Your task to perform on an android device: turn on airplane mode Image 0: 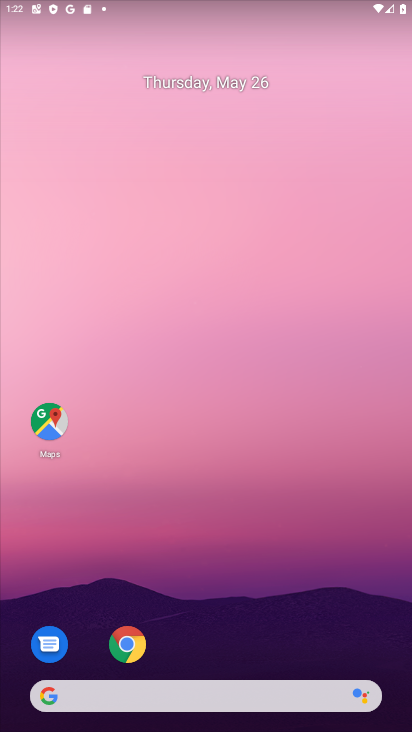
Step 0: drag from (295, 569) to (295, 224)
Your task to perform on an android device: turn on airplane mode Image 1: 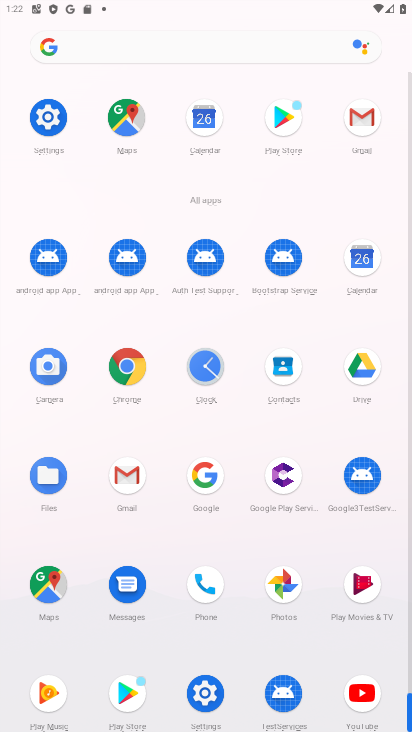
Step 1: click (36, 124)
Your task to perform on an android device: turn on airplane mode Image 2: 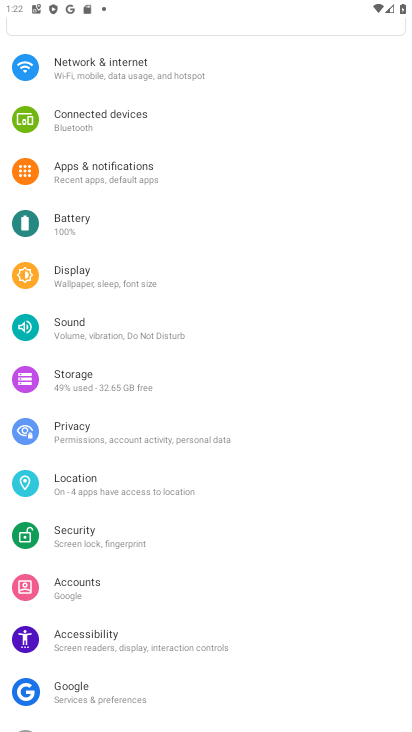
Step 2: click (103, 66)
Your task to perform on an android device: turn on airplane mode Image 3: 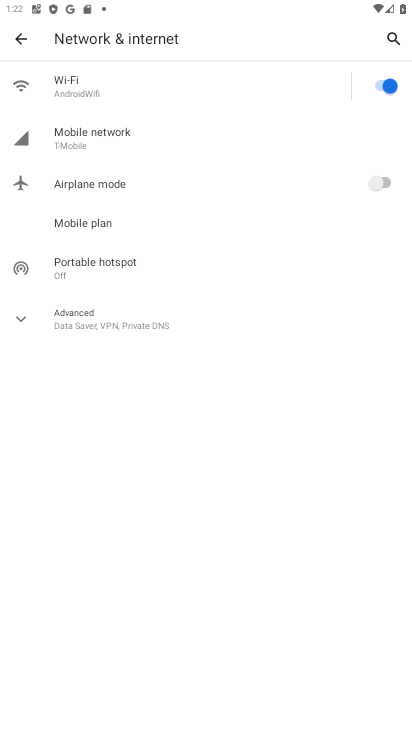
Step 3: click (381, 178)
Your task to perform on an android device: turn on airplane mode Image 4: 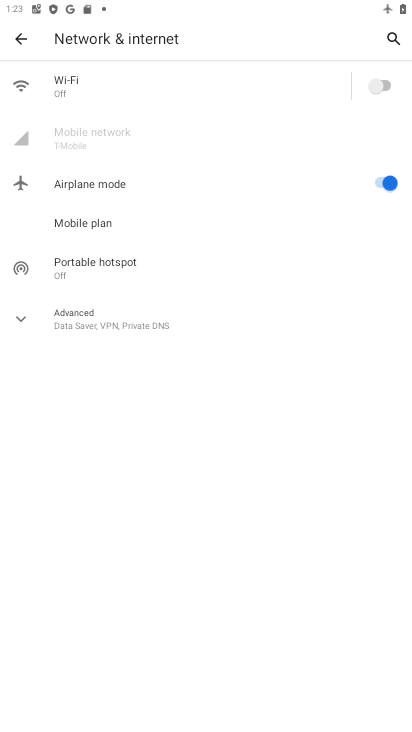
Step 4: task complete